Your task to perform on an android device: Open Google Chrome and open the bookmarks view Image 0: 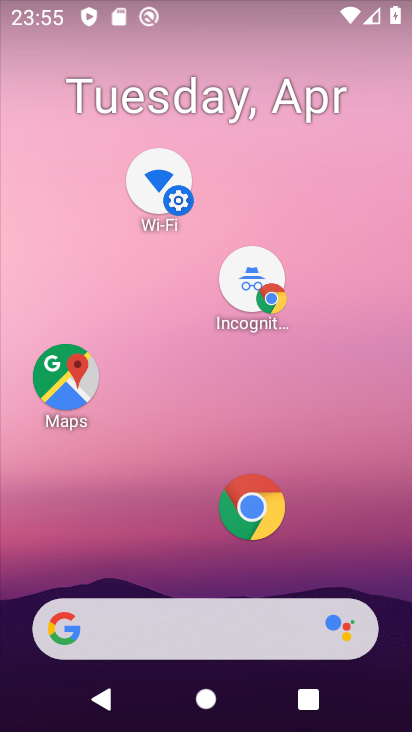
Step 0: click (250, 504)
Your task to perform on an android device: Open Google Chrome and open the bookmarks view Image 1: 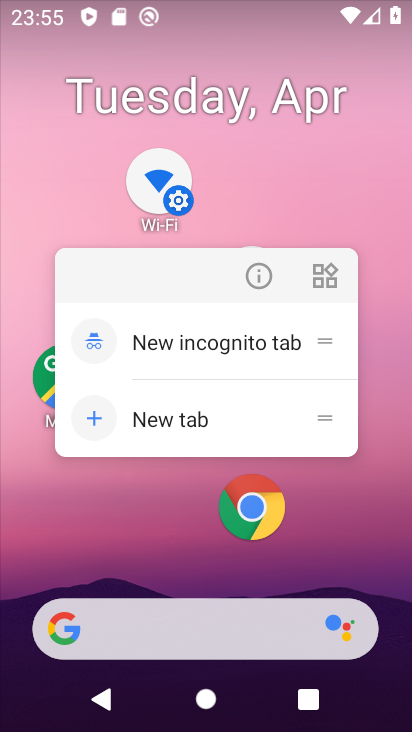
Step 1: click (248, 503)
Your task to perform on an android device: Open Google Chrome and open the bookmarks view Image 2: 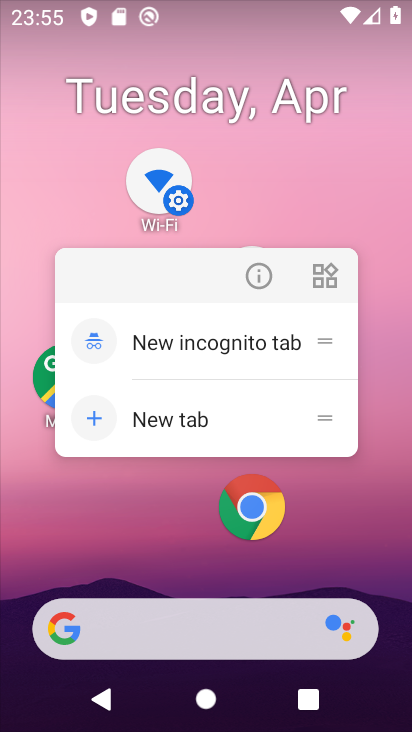
Step 2: click (173, 566)
Your task to perform on an android device: Open Google Chrome and open the bookmarks view Image 3: 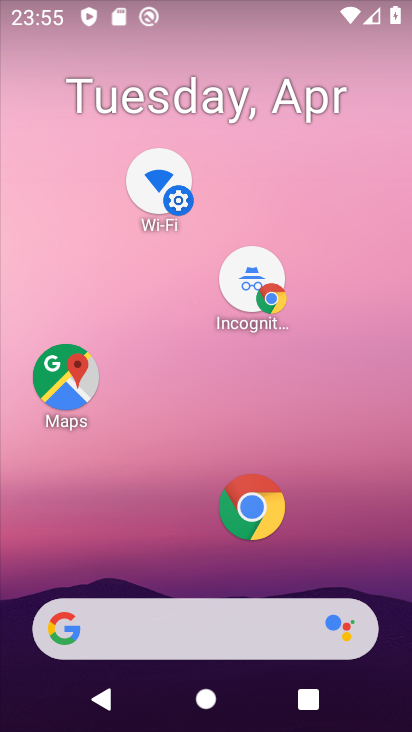
Step 3: click (251, 519)
Your task to perform on an android device: Open Google Chrome and open the bookmarks view Image 4: 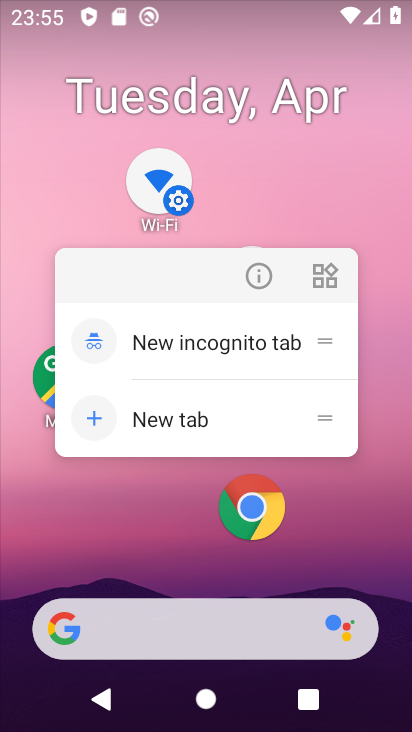
Step 4: click (236, 549)
Your task to perform on an android device: Open Google Chrome and open the bookmarks view Image 5: 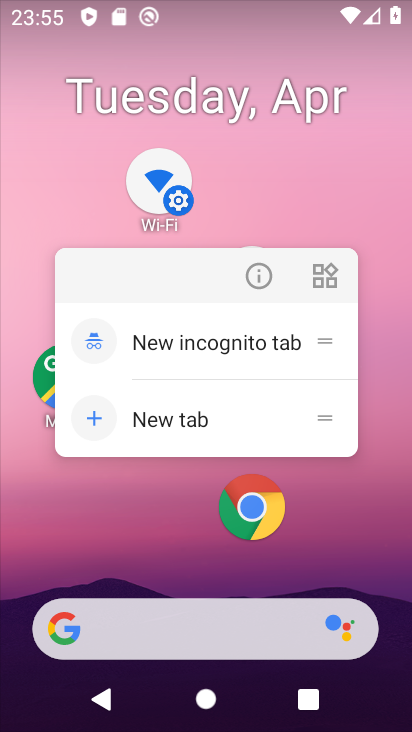
Step 5: click (251, 505)
Your task to perform on an android device: Open Google Chrome and open the bookmarks view Image 6: 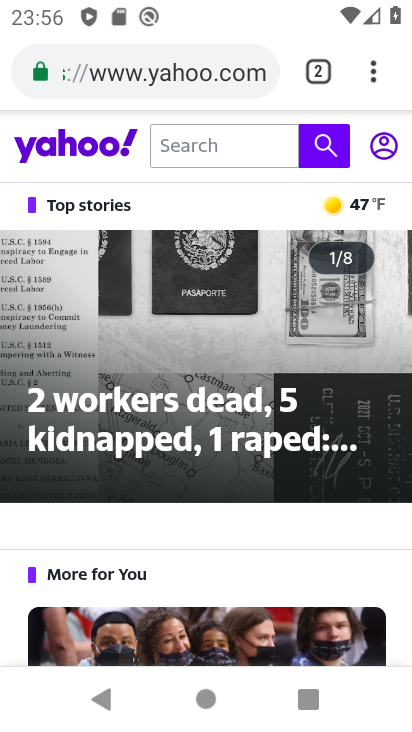
Step 6: click (365, 70)
Your task to perform on an android device: Open Google Chrome and open the bookmarks view Image 7: 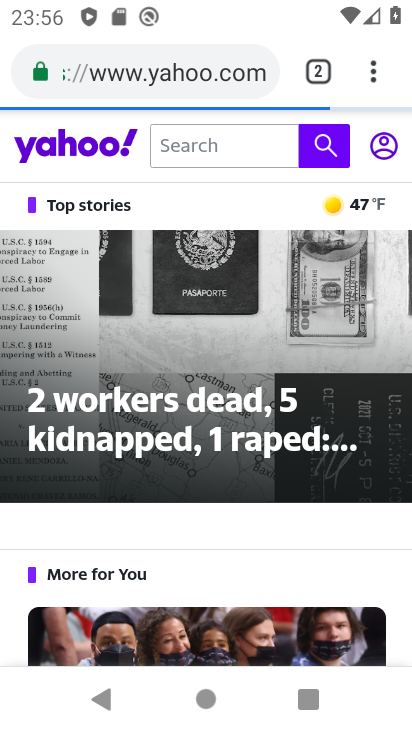
Step 7: click (371, 62)
Your task to perform on an android device: Open Google Chrome and open the bookmarks view Image 8: 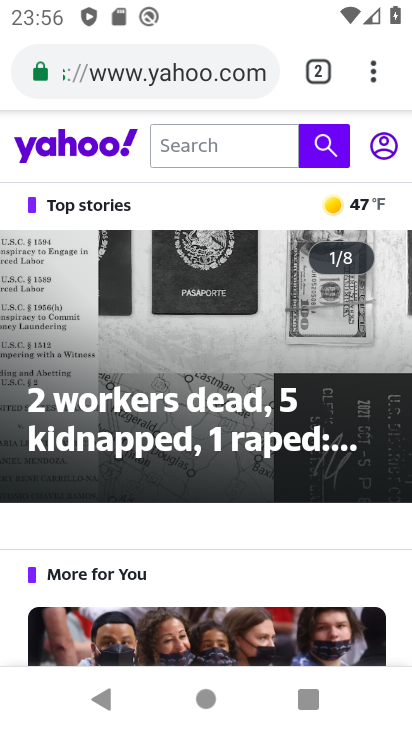
Step 8: click (371, 62)
Your task to perform on an android device: Open Google Chrome and open the bookmarks view Image 9: 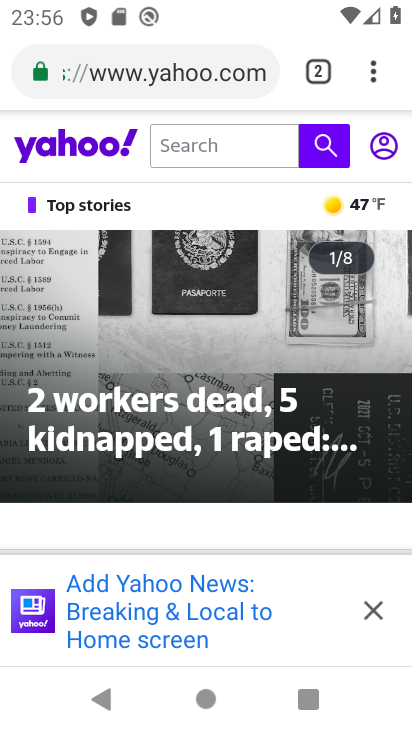
Step 9: click (376, 65)
Your task to perform on an android device: Open Google Chrome and open the bookmarks view Image 10: 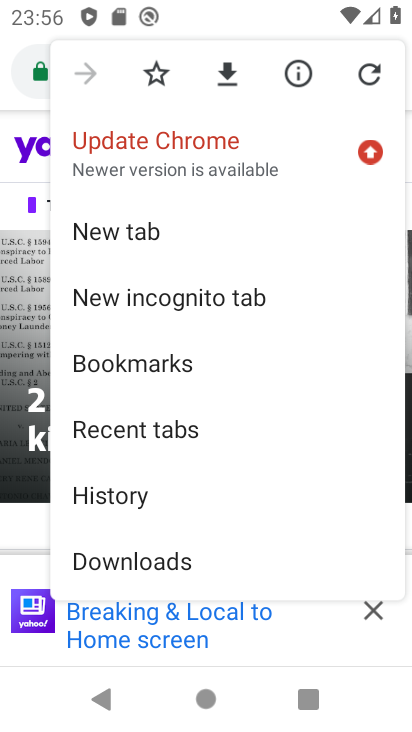
Step 10: drag from (175, 501) to (175, 297)
Your task to perform on an android device: Open Google Chrome and open the bookmarks view Image 11: 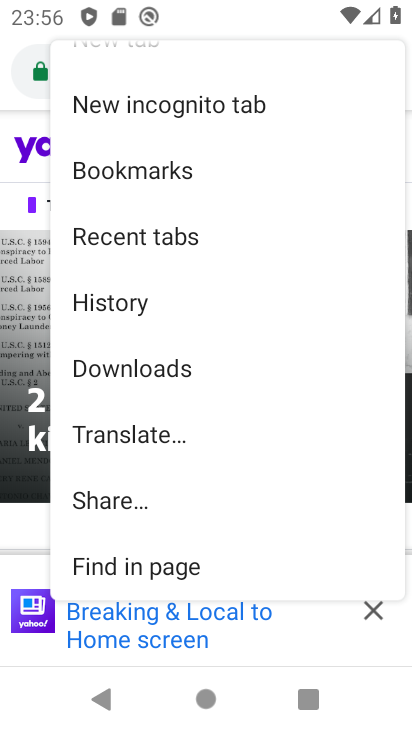
Step 11: drag from (208, 498) to (206, 232)
Your task to perform on an android device: Open Google Chrome and open the bookmarks view Image 12: 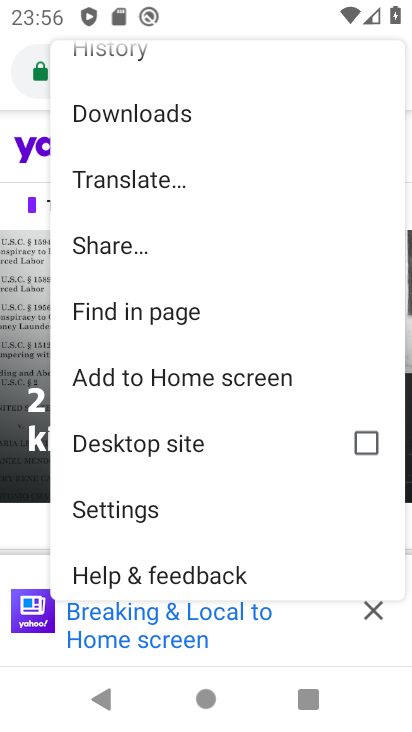
Step 12: drag from (164, 246) to (91, 439)
Your task to perform on an android device: Open Google Chrome and open the bookmarks view Image 13: 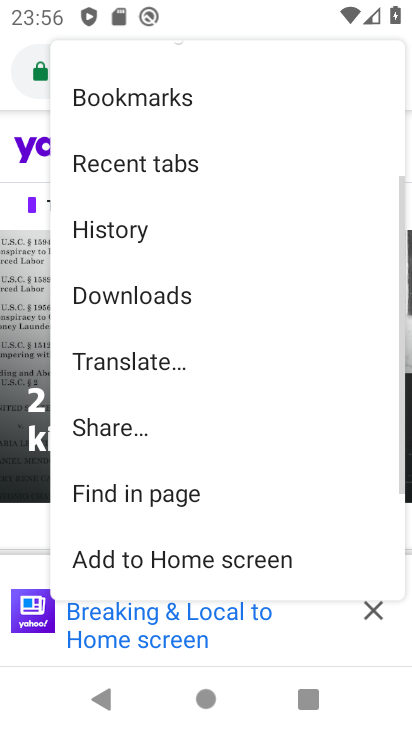
Step 13: drag from (186, 225) to (221, 459)
Your task to perform on an android device: Open Google Chrome and open the bookmarks view Image 14: 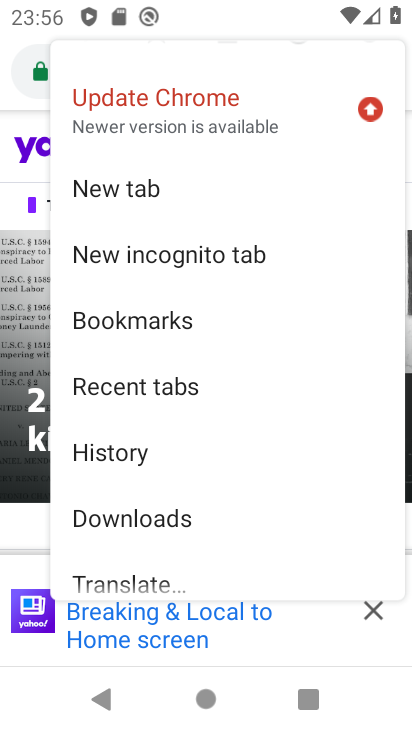
Step 14: click (108, 316)
Your task to perform on an android device: Open Google Chrome and open the bookmarks view Image 15: 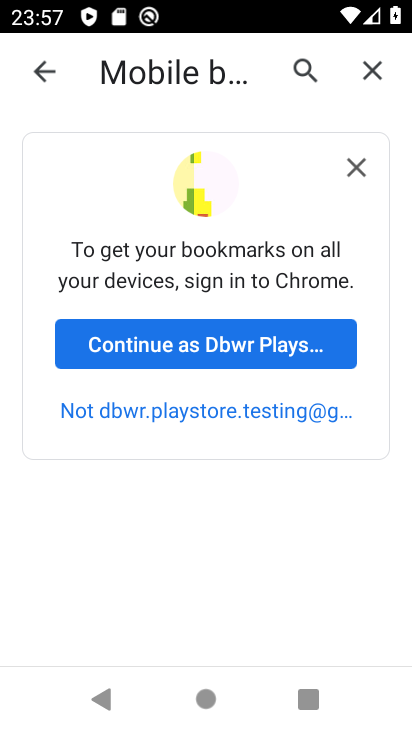
Step 15: click (353, 160)
Your task to perform on an android device: Open Google Chrome and open the bookmarks view Image 16: 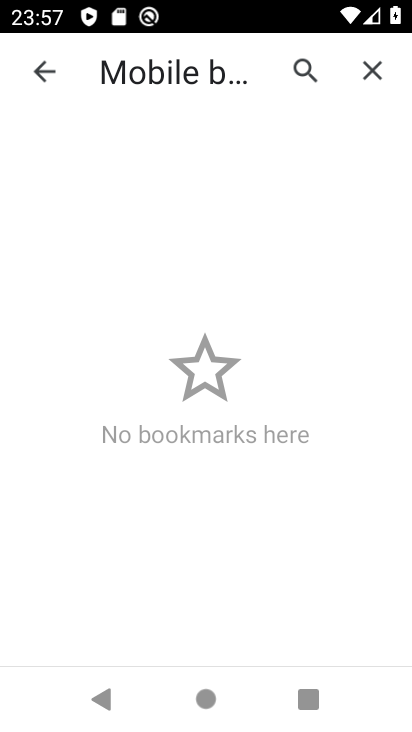
Step 16: task complete